Your task to perform on an android device: create a new album in the google photos Image 0: 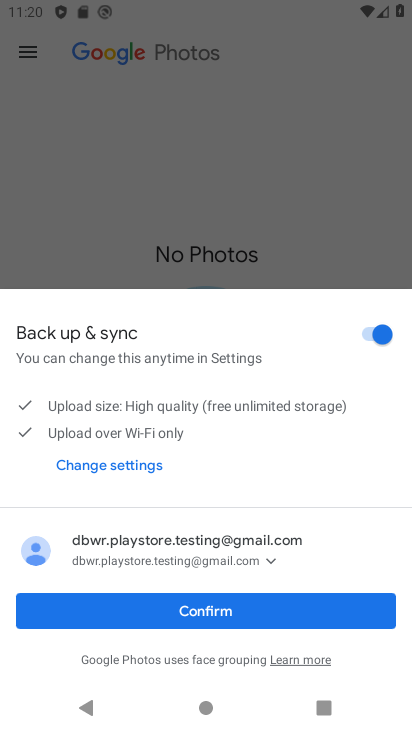
Step 0: press home button
Your task to perform on an android device: create a new album in the google photos Image 1: 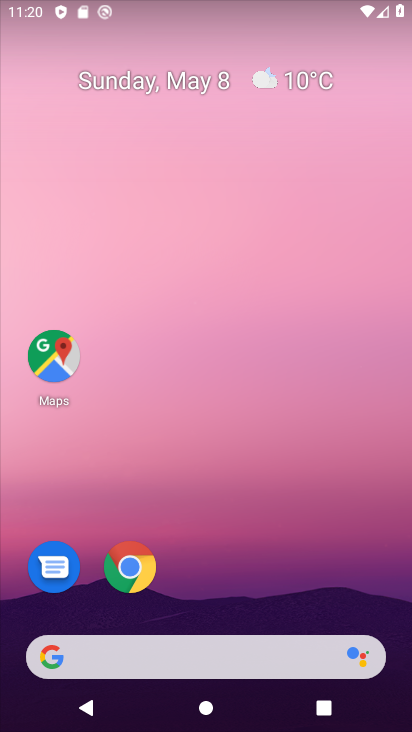
Step 1: drag from (169, 618) to (214, 244)
Your task to perform on an android device: create a new album in the google photos Image 2: 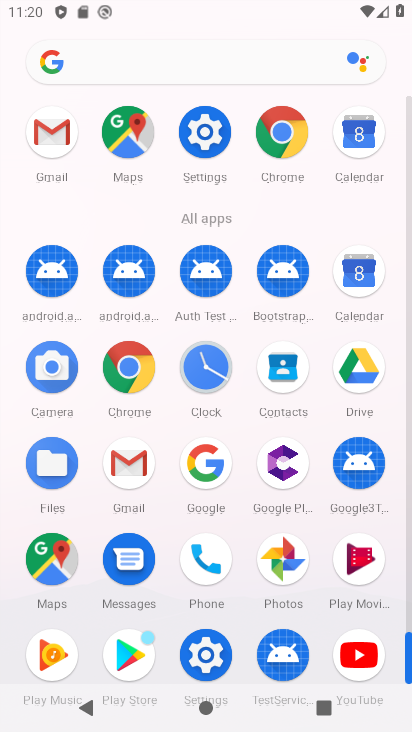
Step 2: click (278, 550)
Your task to perform on an android device: create a new album in the google photos Image 3: 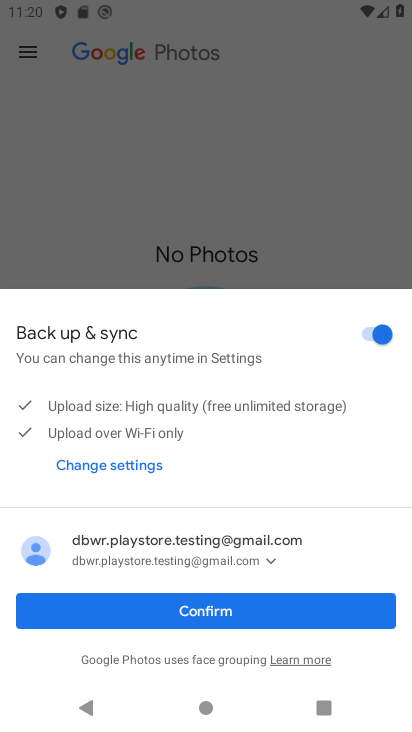
Step 3: click (275, 604)
Your task to perform on an android device: create a new album in the google photos Image 4: 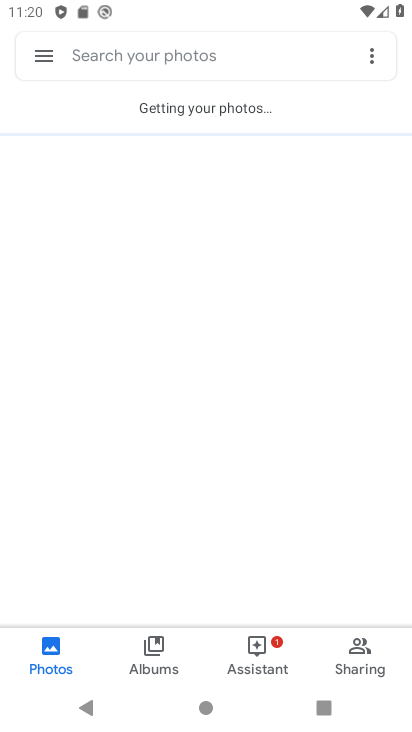
Step 4: click (166, 668)
Your task to perform on an android device: create a new album in the google photos Image 5: 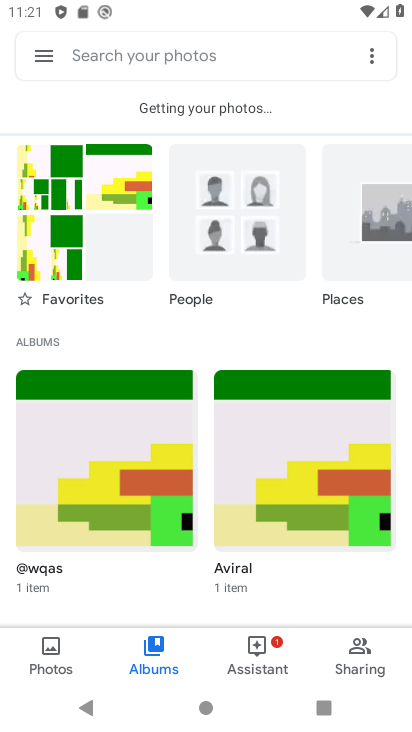
Step 5: task complete